Your task to perform on an android device: Open Android settings Image 0: 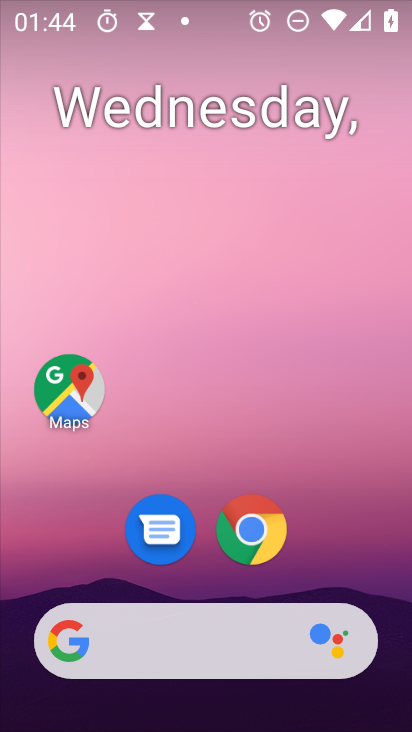
Step 0: drag from (306, 619) to (363, 2)
Your task to perform on an android device: Open Android settings Image 1: 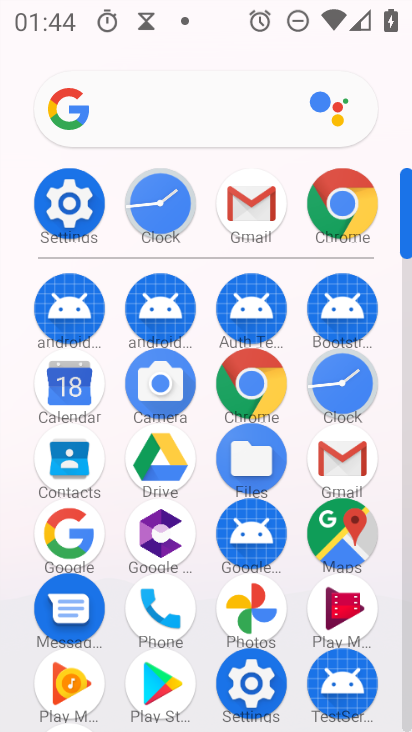
Step 1: click (249, 673)
Your task to perform on an android device: Open Android settings Image 2: 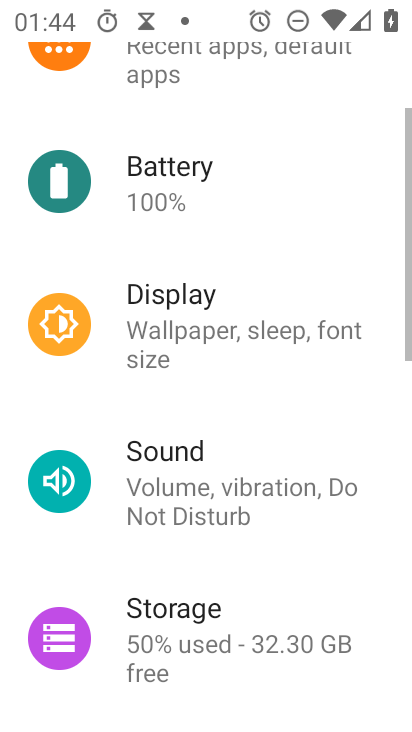
Step 2: drag from (249, 673) to (286, 81)
Your task to perform on an android device: Open Android settings Image 3: 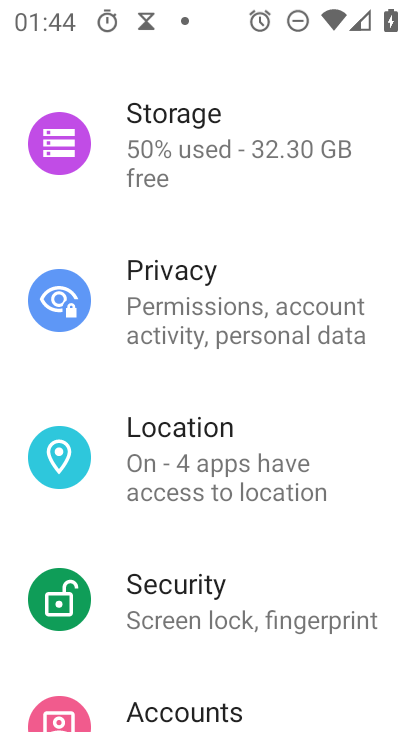
Step 3: drag from (310, 625) to (343, 47)
Your task to perform on an android device: Open Android settings Image 4: 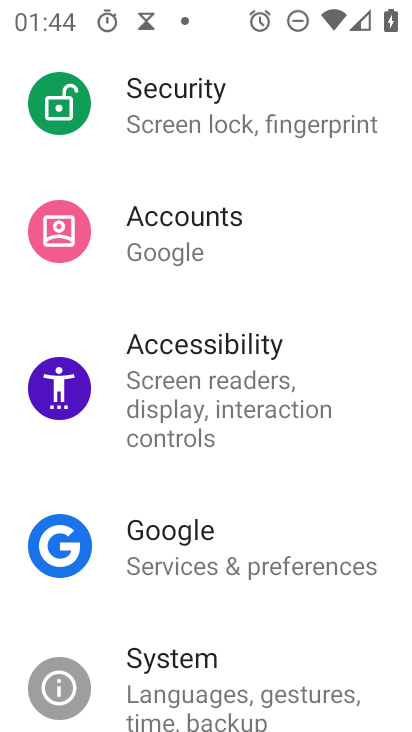
Step 4: drag from (300, 642) to (305, 58)
Your task to perform on an android device: Open Android settings Image 5: 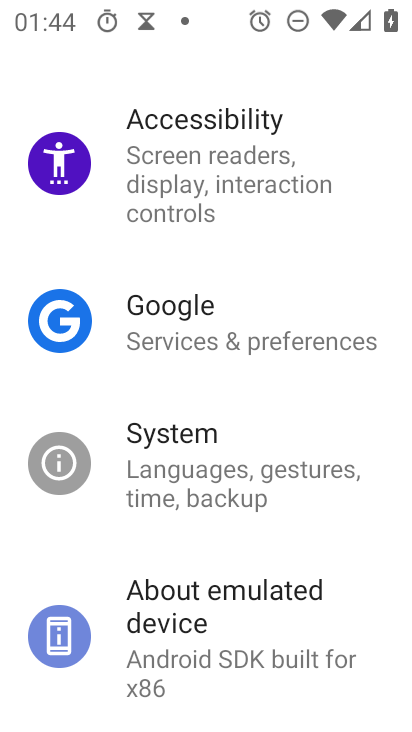
Step 5: click (262, 644)
Your task to perform on an android device: Open Android settings Image 6: 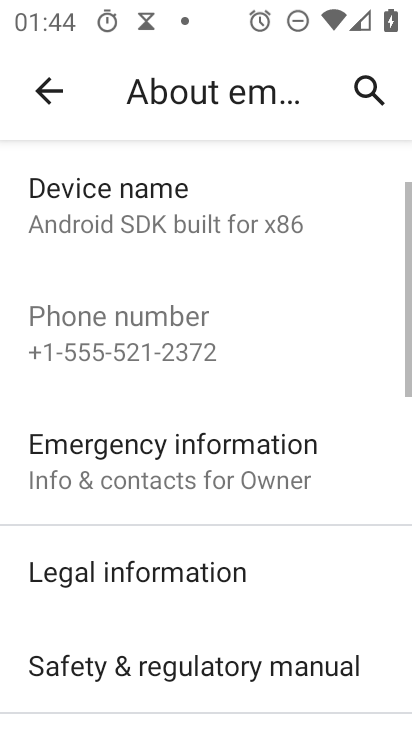
Step 6: task complete